Your task to perform on an android device: Open calendar and show me the fourth week of next month Image 0: 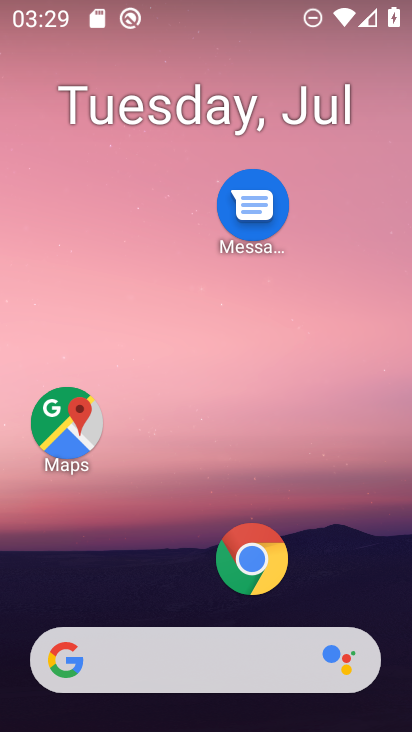
Step 0: drag from (87, 570) to (191, 19)
Your task to perform on an android device: Open calendar and show me the fourth week of next month Image 1: 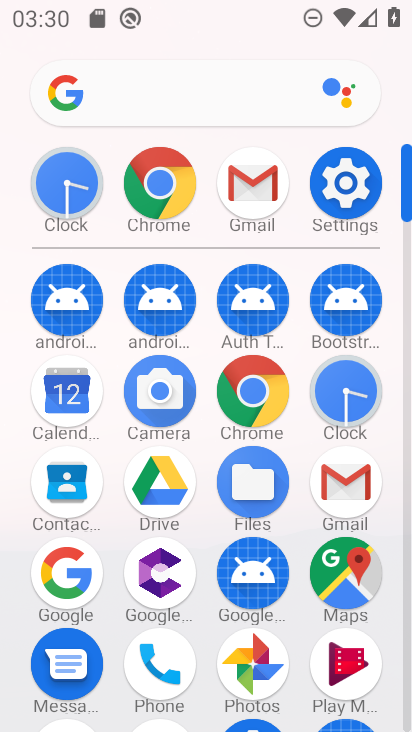
Step 1: click (42, 418)
Your task to perform on an android device: Open calendar and show me the fourth week of next month Image 2: 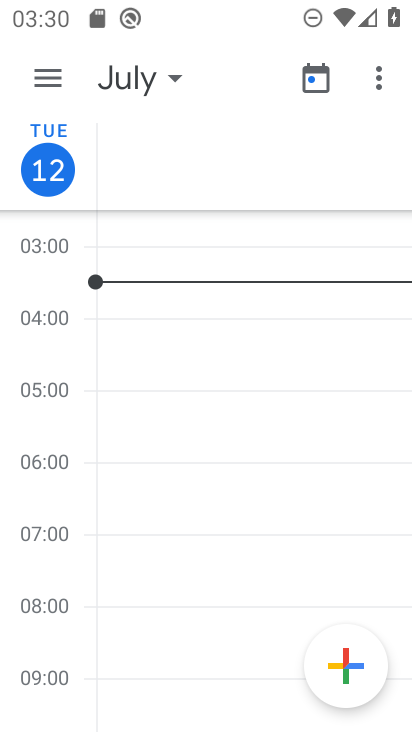
Step 2: click (164, 70)
Your task to perform on an android device: Open calendar and show me the fourth week of next month Image 3: 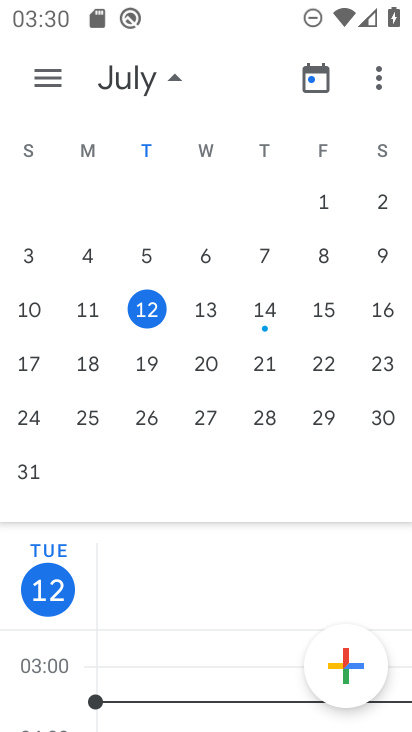
Step 3: drag from (373, 351) to (48, 299)
Your task to perform on an android device: Open calendar and show me the fourth week of next month Image 4: 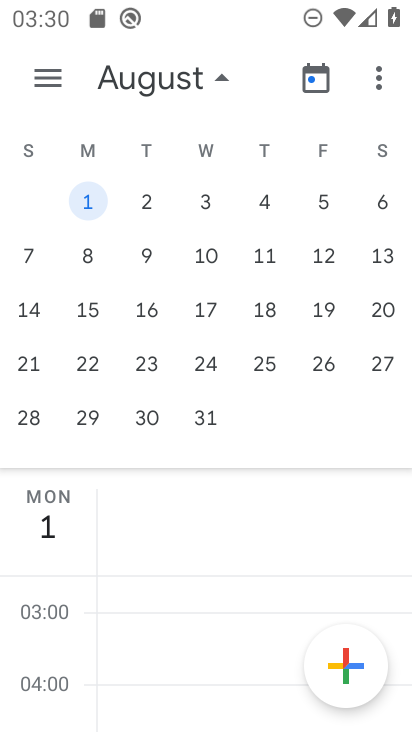
Step 4: click (89, 362)
Your task to perform on an android device: Open calendar and show me the fourth week of next month Image 5: 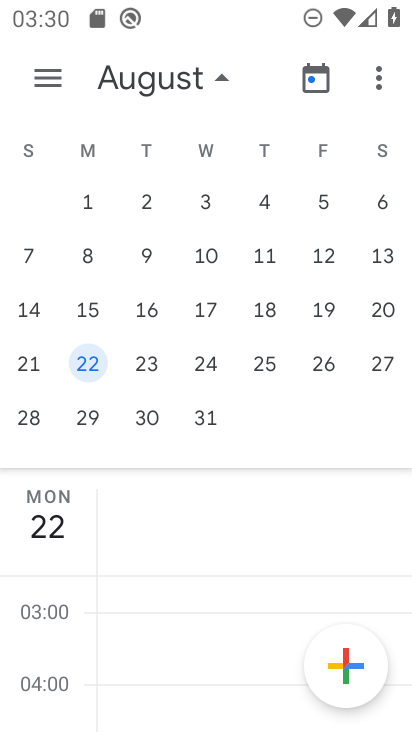
Step 5: task complete